Your task to perform on an android device: turn on sleep mode Image 0: 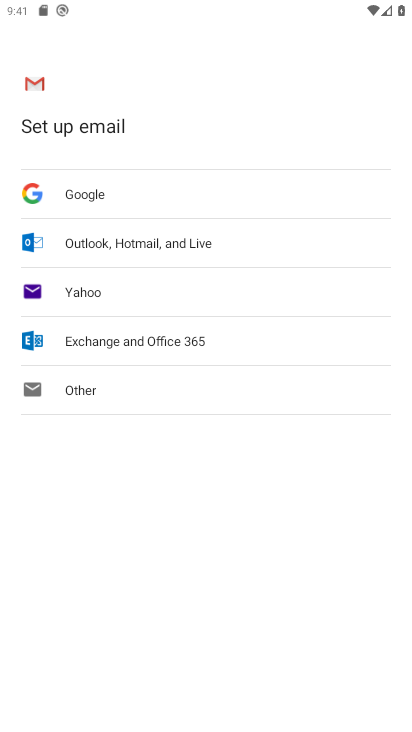
Step 0: press home button
Your task to perform on an android device: turn on sleep mode Image 1: 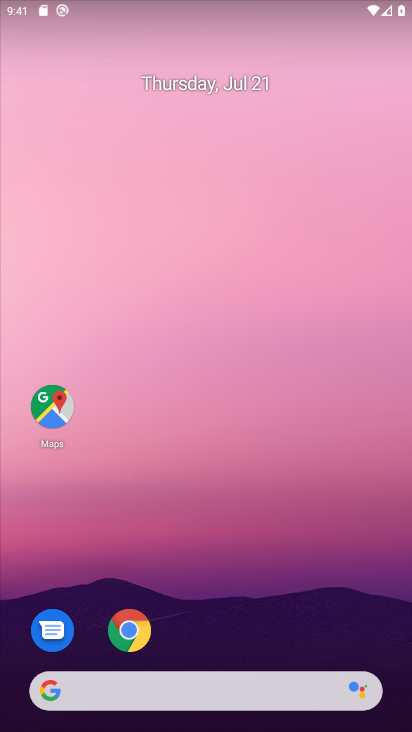
Step 1: drag from (227, 652) to (208, 430)
Your task to perform on an android device: turn on sleep mode Image 2: 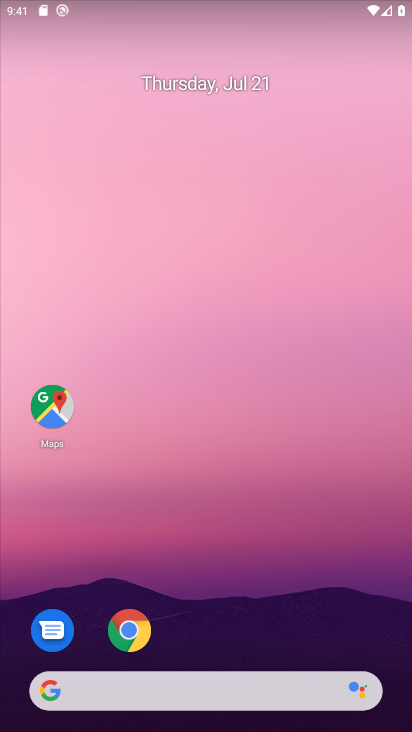
Step 2: drag from (309, 583) to (281, 14)
Your task to perform on an android device: turn on sleep mode Image 3: 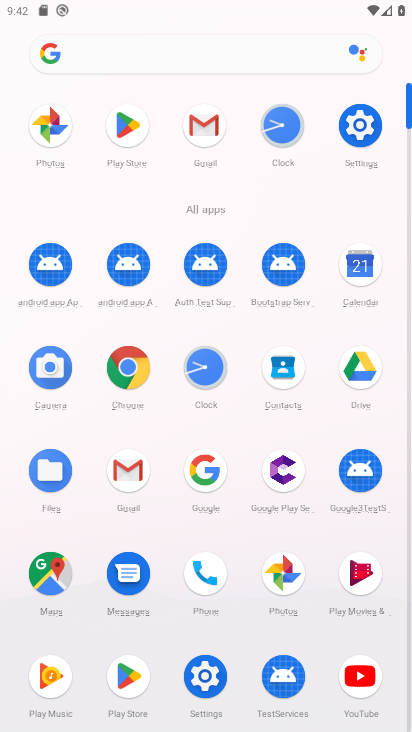
Step 3: click (355, 133)
Your task to perform on an android device: turn on sleep mode Image 4: 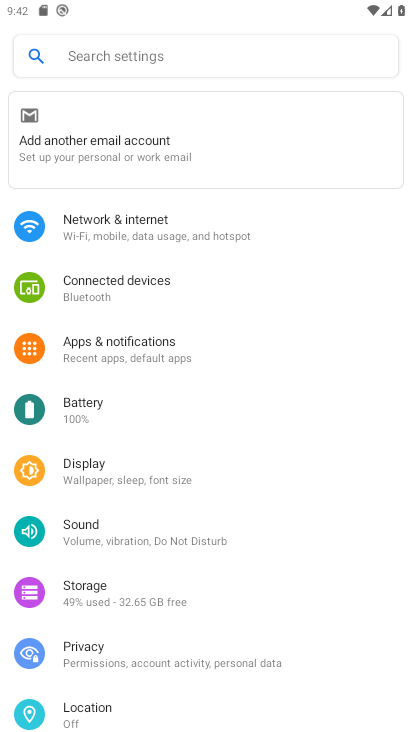
Step 4: click (103, 463)
Your task to perform on an android device: turn on sleep mode Image 5: 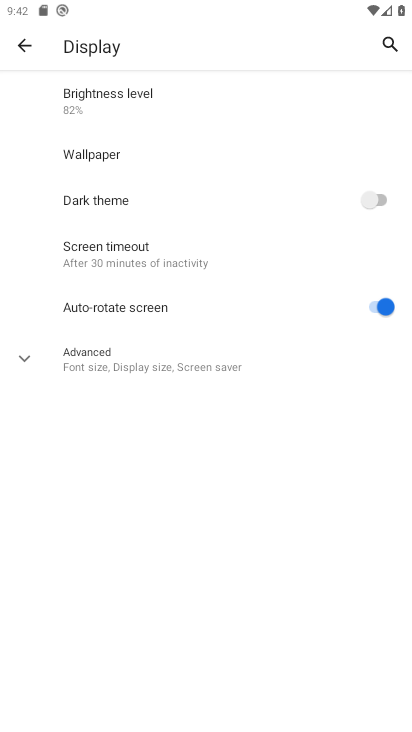
Step 5: click (153, 366)
Your task to perform on an android device: turn on sleep mode Image 6: 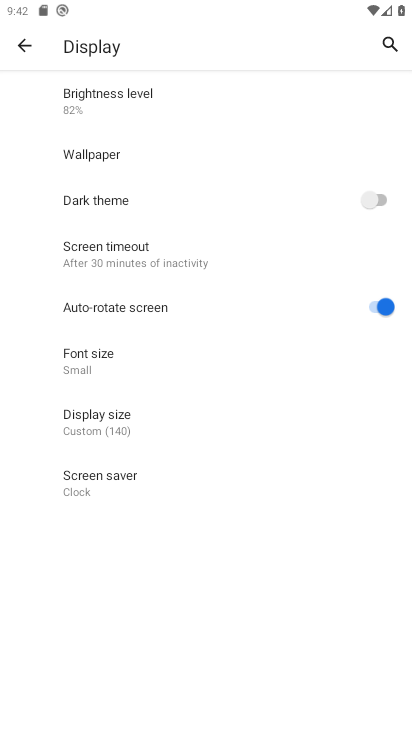
Step 6: task complete